Your task to perform on an android device: empty trash in the gmail app Image 0: 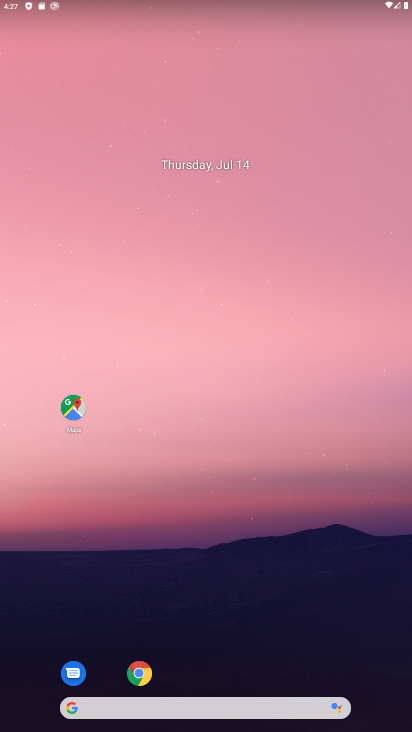
Step 0: drag from (272, 685) to (324, 132)
Your task to perform on an android device: empty trash in the gmail app Image 1: 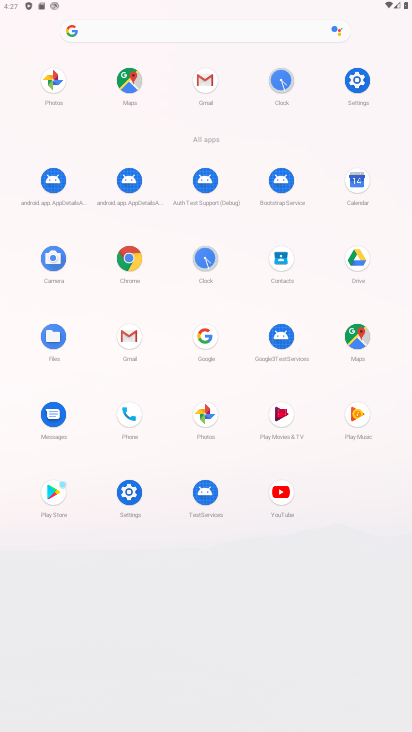
Step 1: click (141, 344)
Your task to perform on an android device: empty trash in the gmail app Image 2: 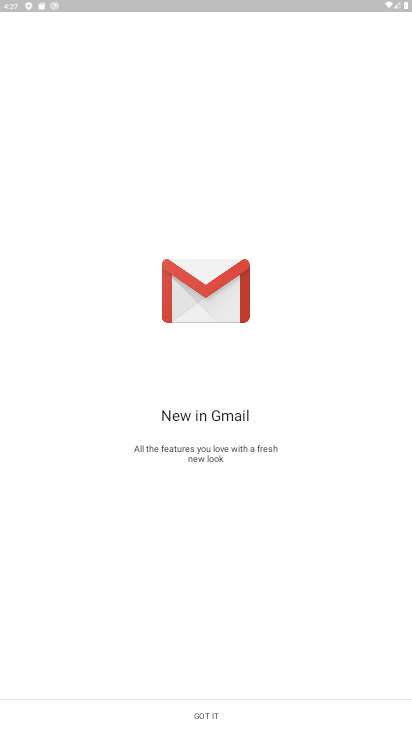
Step 2: click (226, 714)
Your task to perform on an android device: empty trash in the gmail app Image 3: 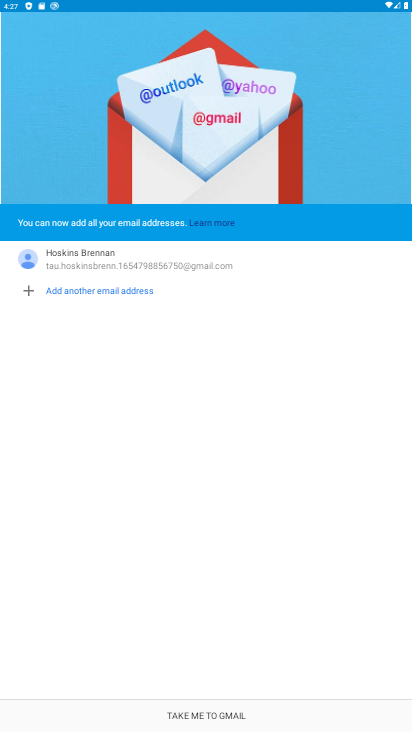
Step 3: click (224, 714)
Your task to perform on an android device: empty trash in the gmail app Image 4: 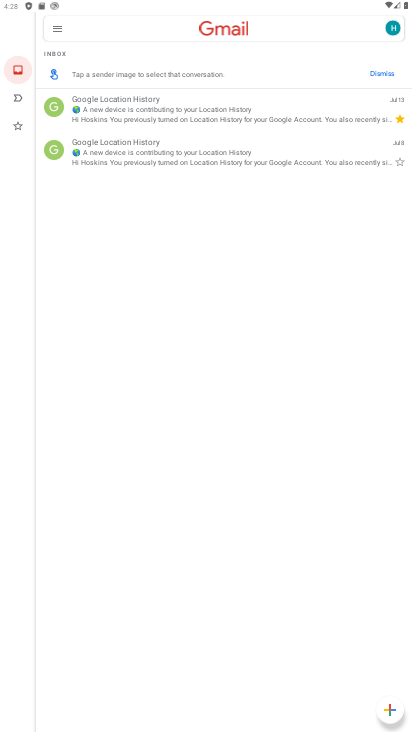
Step 4: click (56, 25)
Your task to perform on an android device: empty trash in the gmail app Image 5: 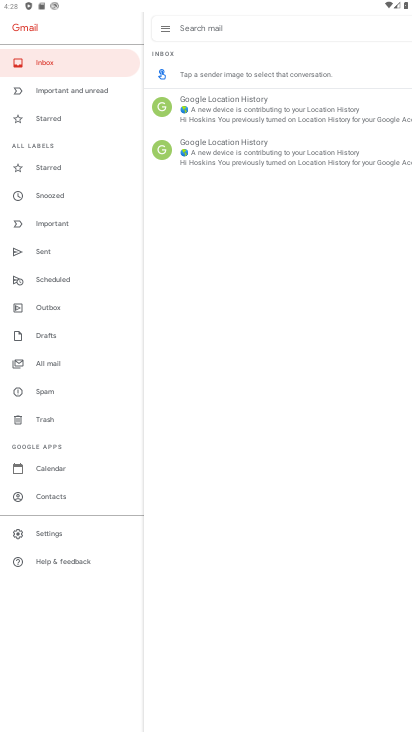
Step 5: click (55, 424)
Your task to perform on an android device: empty trash in the gmail app Image 6: 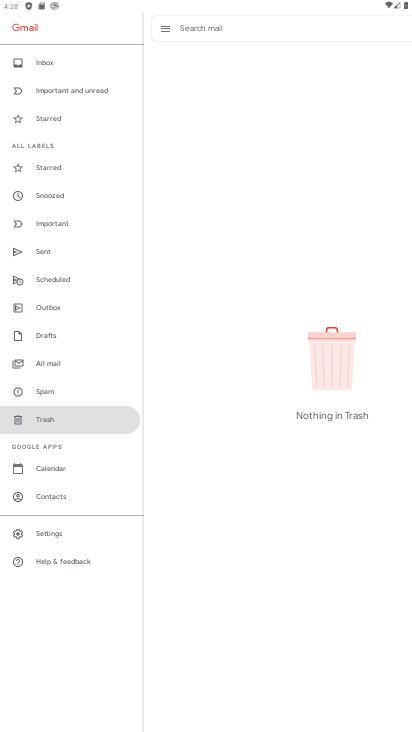
Step 6: task complete